Your task to perform on an android device: Open calendar and show me the second week of next month Image 0: 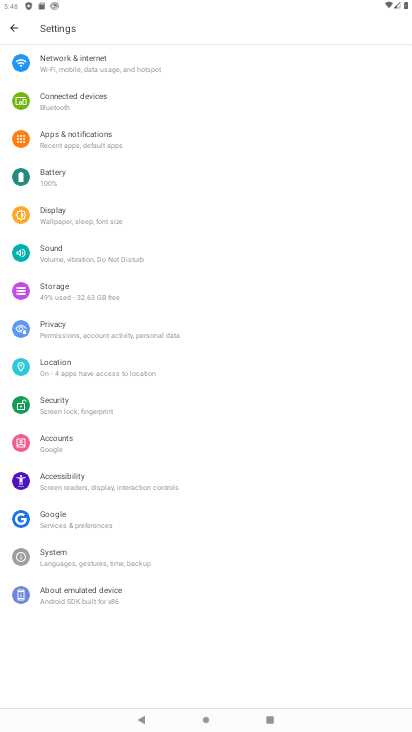
Step 0: press home button
Your task to perform on an android device: Open calendar and show me the second week of next month Image 1: 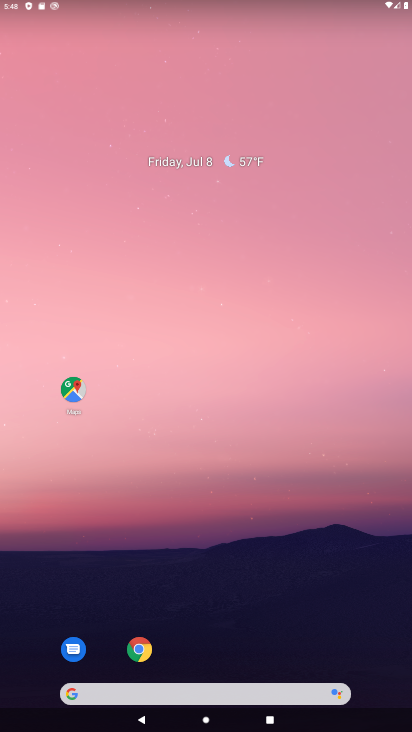
Step 1: drag from (282, 431) to (319, 13)
Your task to perform on an android device: Open calendar and show me the second week of next month Image 2: 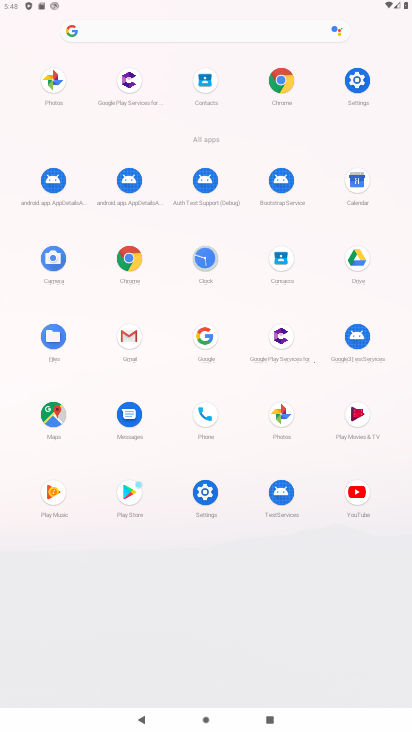
Step 2: click (356, 185)
Your task to perform on an android device: Open calendar and show me the second week of next month Image 3: 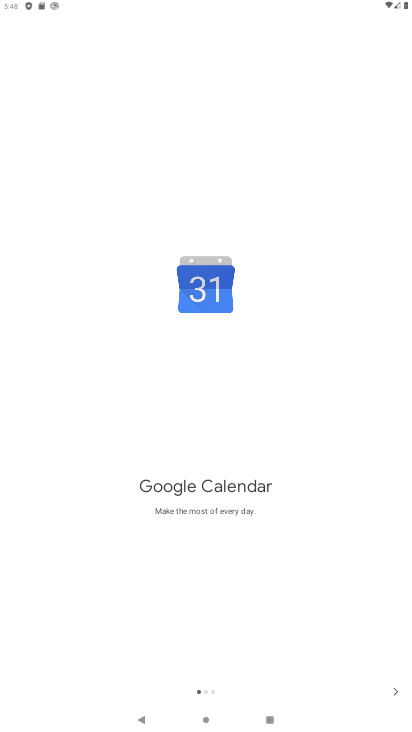
Step 3: click (397, 693)
Your task to perform on an android device: Open calendar and show me the second week of next month Image 4: 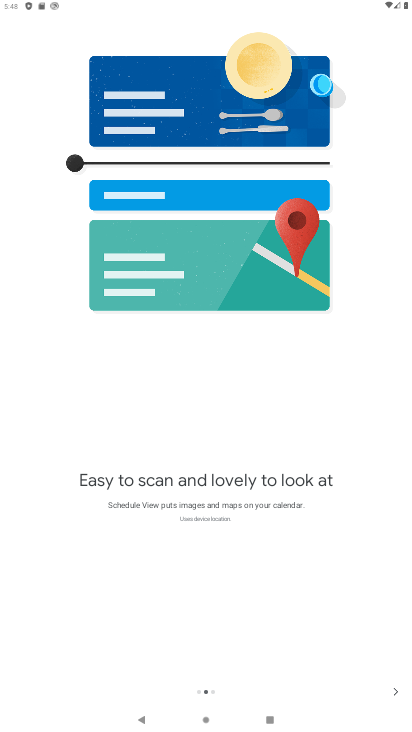
Step 4: click (397, 693)
Your task to perform on an android device: Open calendar and show me the second week of next month Image 5: 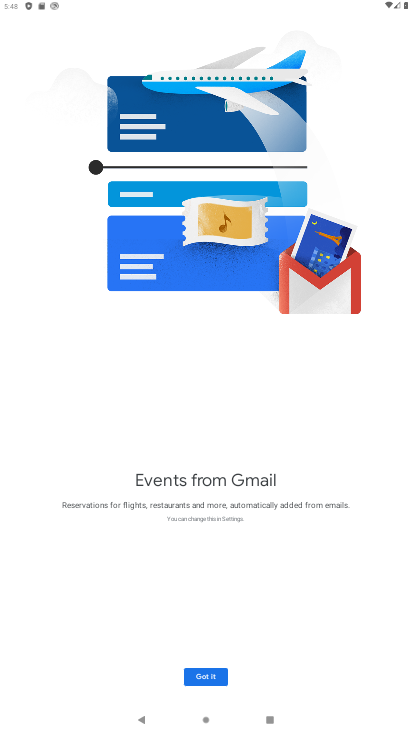
Step 5: click (203, 670)
Your task to perform on an android device: Open calendar and show me the second week of next month Image 6: 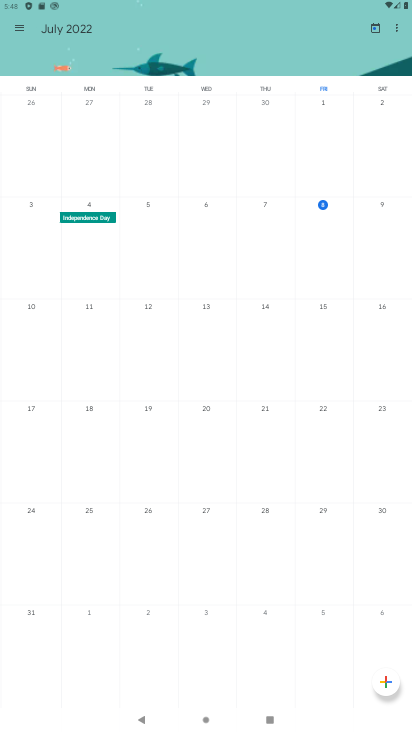
Step 6: drag from (361, 305) to (56, 305)
Your task to perform on an android device: Open calendar and show me the second week of next month Image 7: 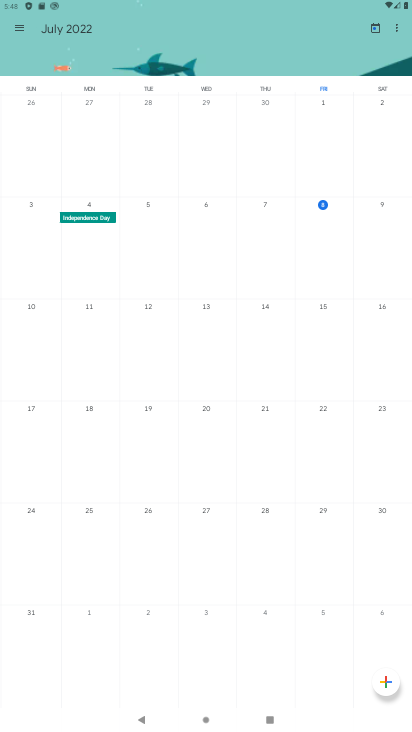
Step 7: drag from (351, 236) to (15, 435)
Your task to perform on an android device: Open calendar and show me the second week of next month Image 8: 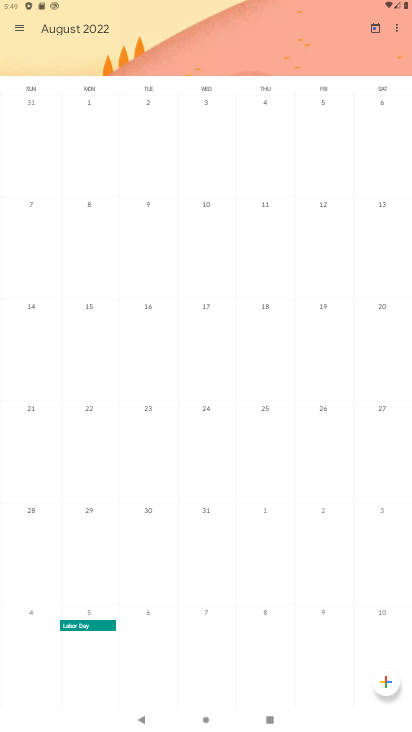
Step 8: click (198, 203)
Your task to perform on an android device: Open calendar and show me the second week of next month Image 9: 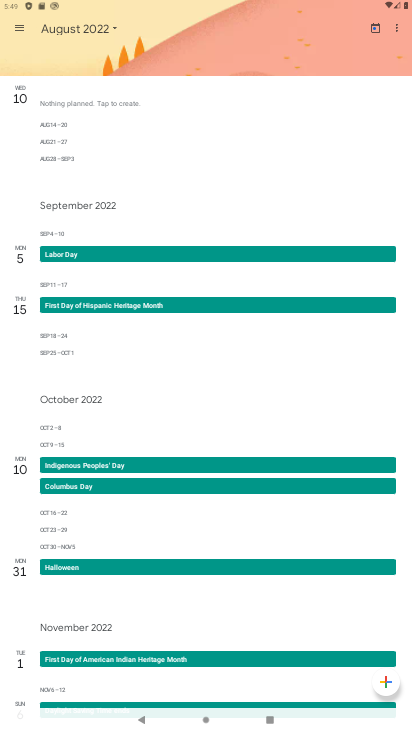
Step 9: task complete